Your task to perform on an android device: check google app version Image 0: 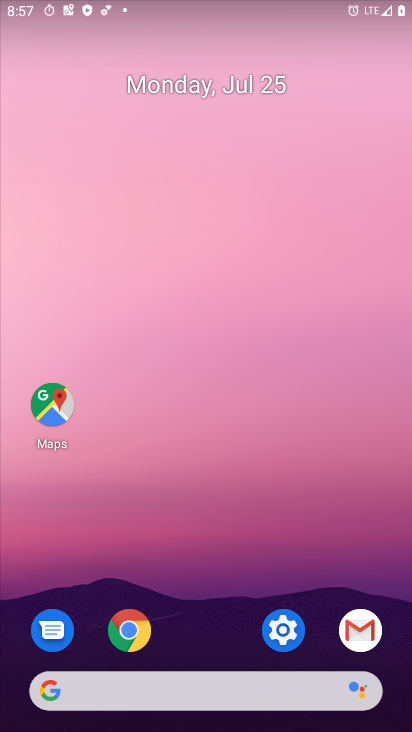
Step 0: click (152, 631)
Your task to perform on an android device: check google app version Image 1: 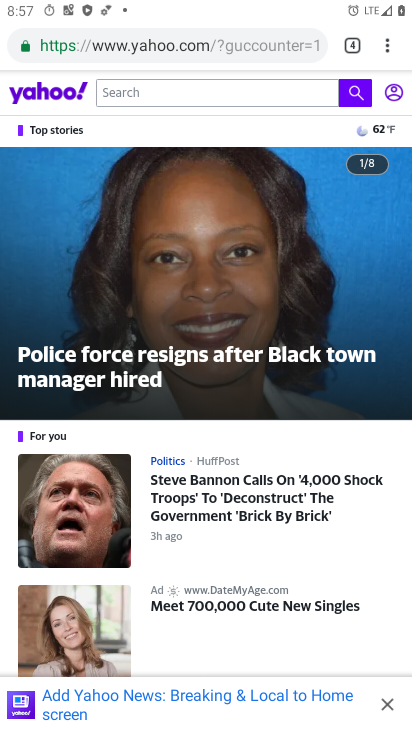
Step 1: click (380, 48)
Your task to perform on an android device: check google app version Image 2: 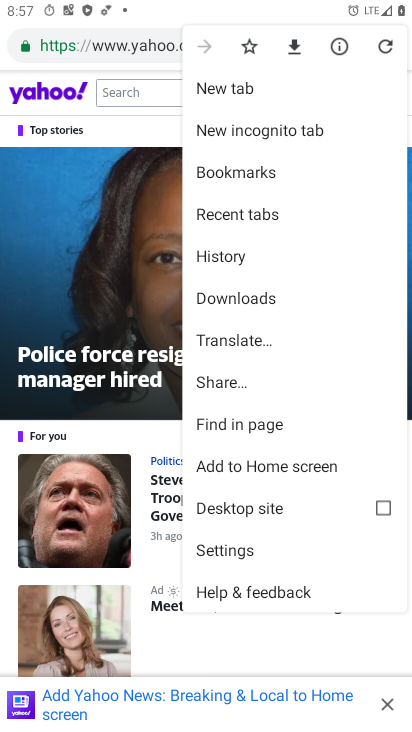
Step 2: click (211, 545)
Your task to perform on an android device: check google app version Image 3: 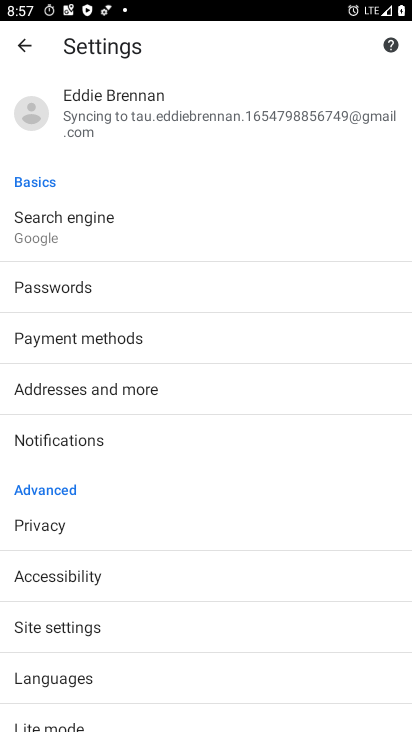
Step 3: drag from (132, 642) to (167, 395)
Your task to perform on an android device: check google app version Image 4: 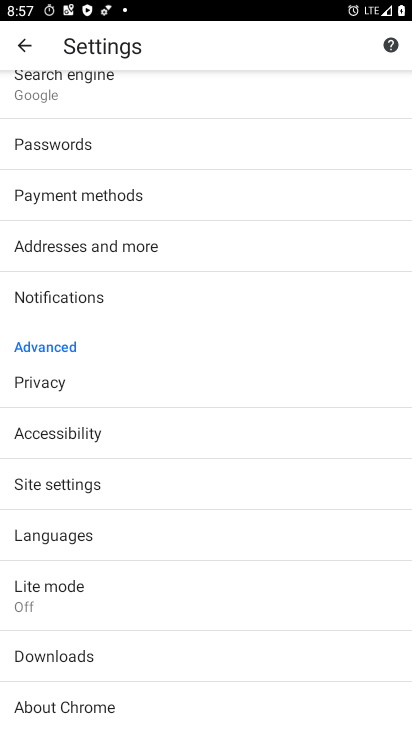
Step 4: click (69, 712)
Your task to perform on an android device: check google app version Image 5: 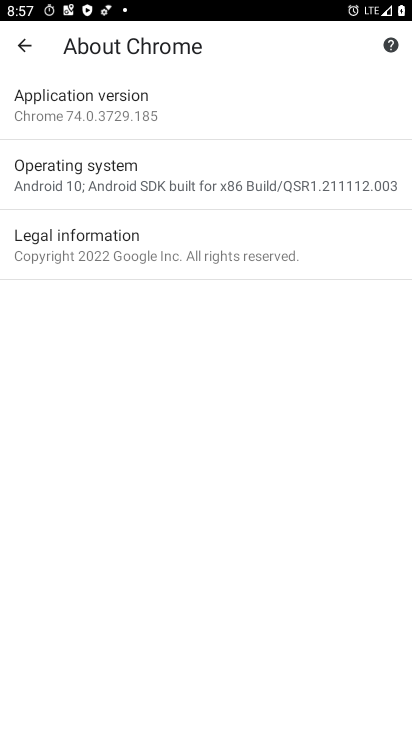
Step 5: click (120, 120)
Your task to perform on an android device: check google app version Image 6: 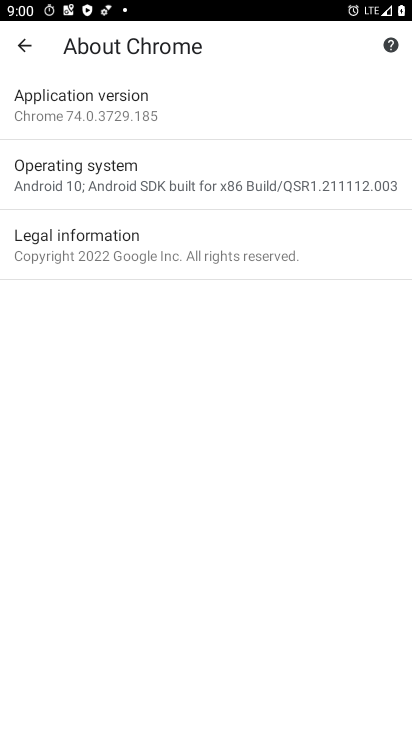
Step 6: task complete